Your task to perform on an android device: Do I have any events tomorrow? Image 0: 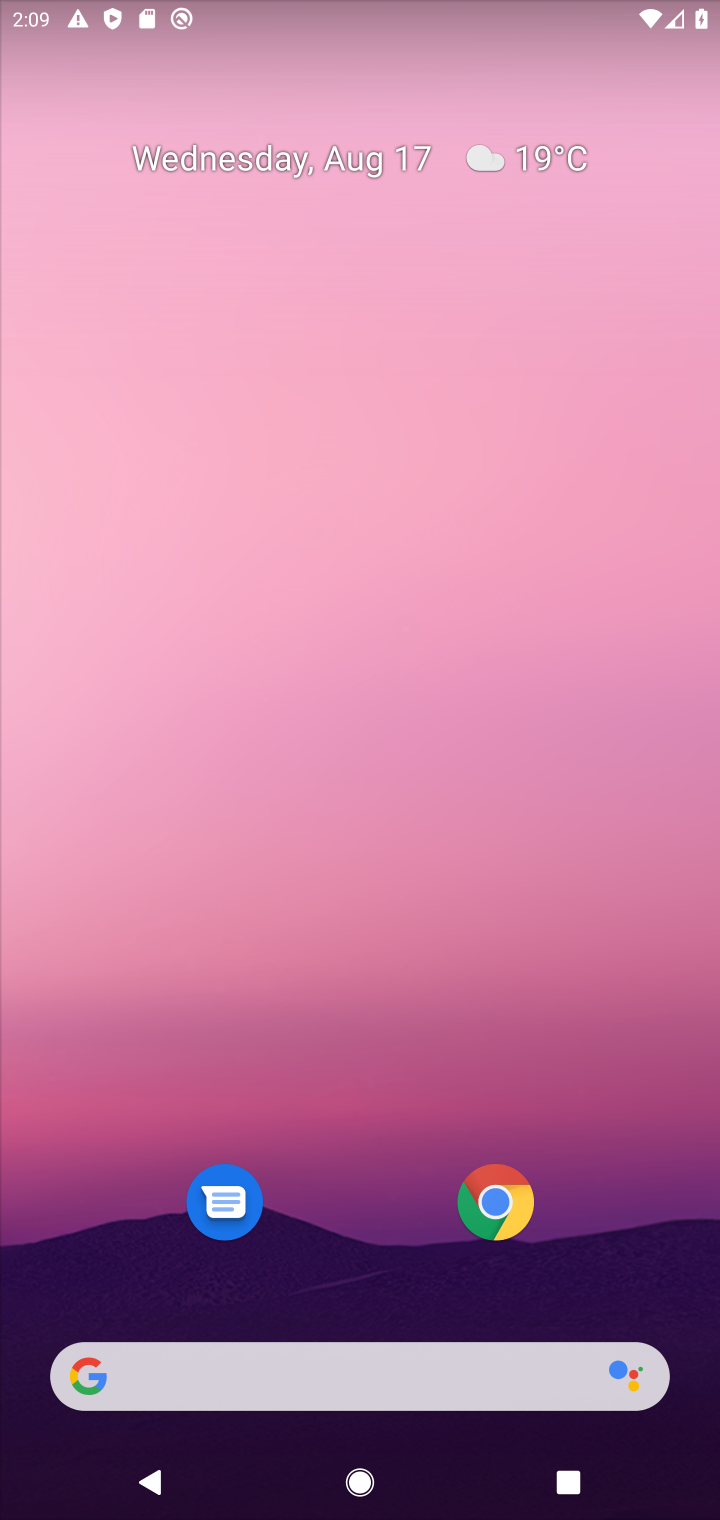
Step 0: click (423, 265)
Your task to perform on an android device: Do I have any events tomorrow? Image 1: 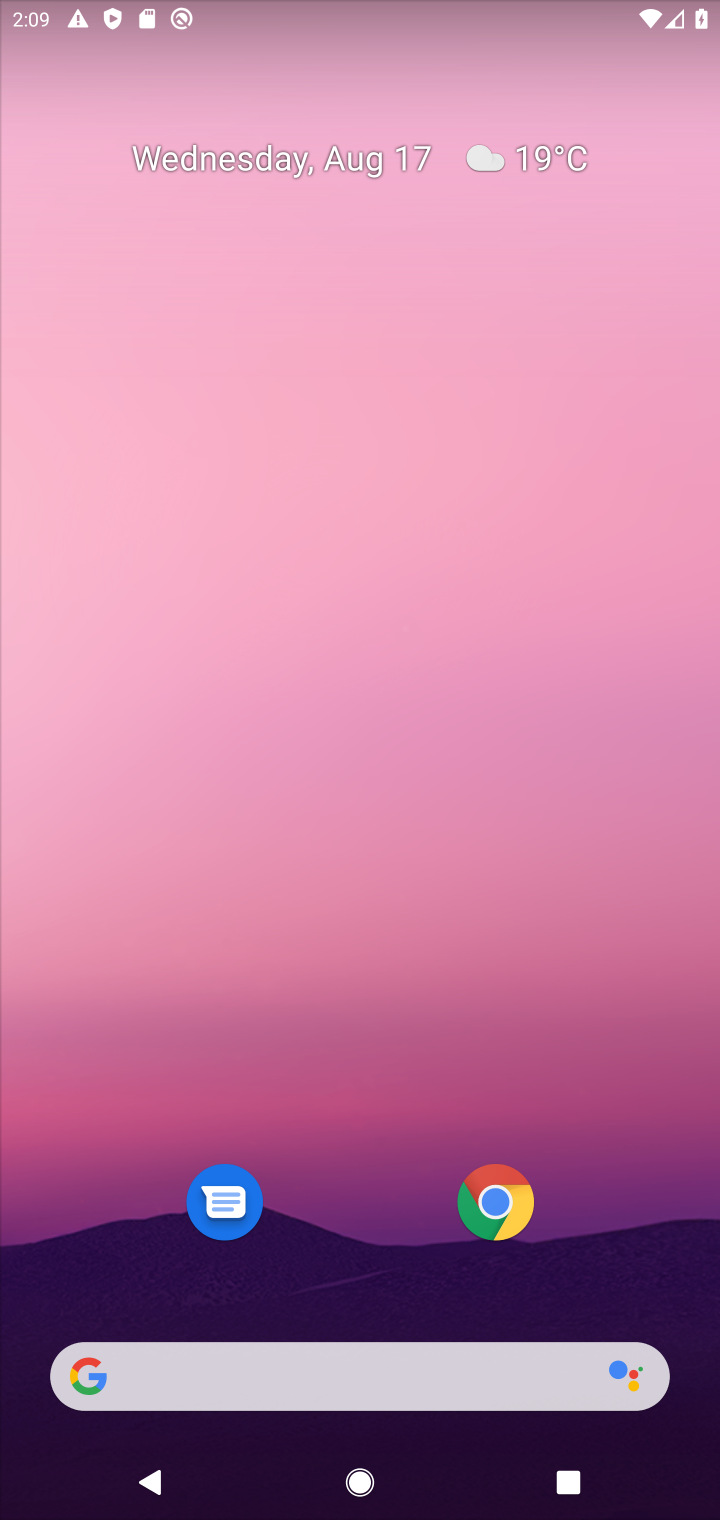
Step 1: drag from (409, 1275) to (414, 715)
Your task to perform on an android device: Do I have any events tomorrow? Image 2: 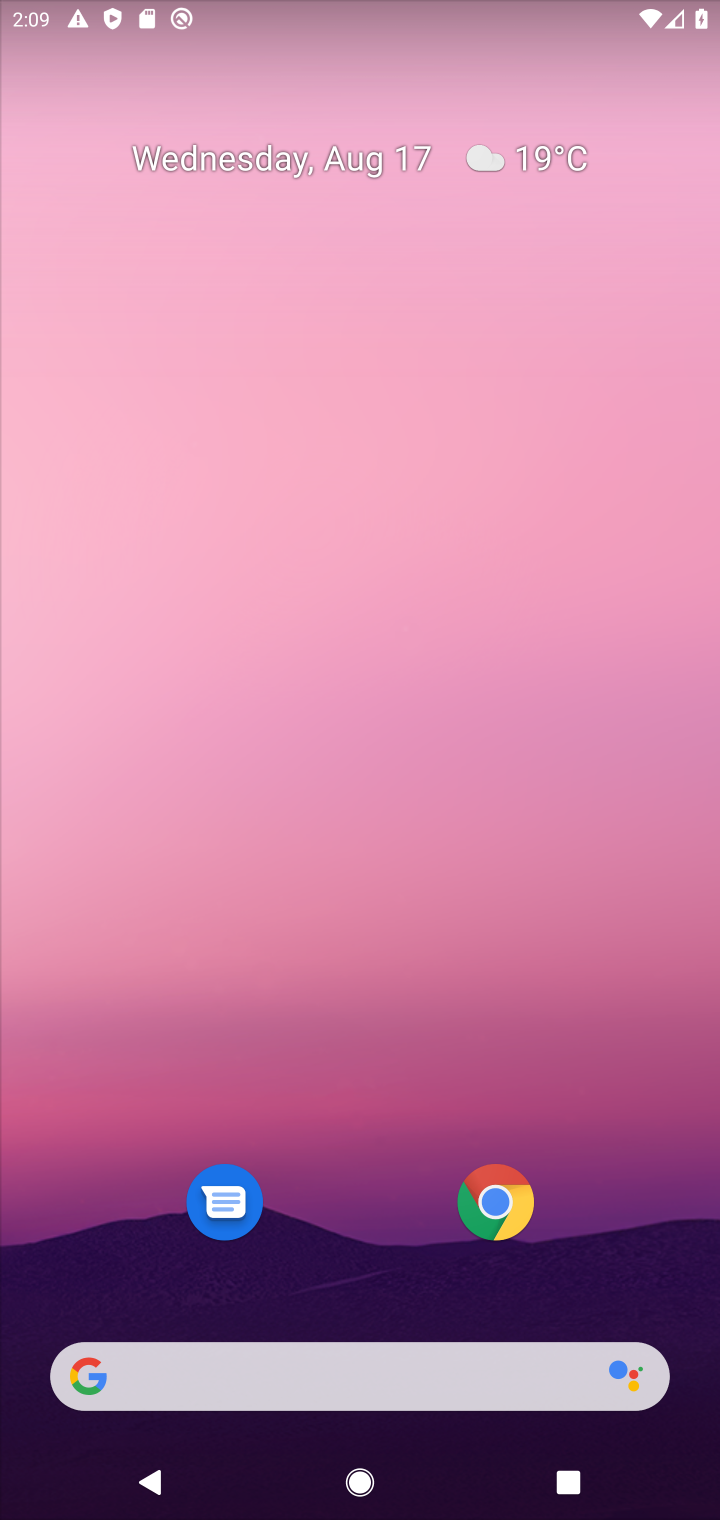
Step 2: drag from (334, 1313) to (589, 18)
Your task to perform on an android device: Do I have any events tomorrow? Image 3: 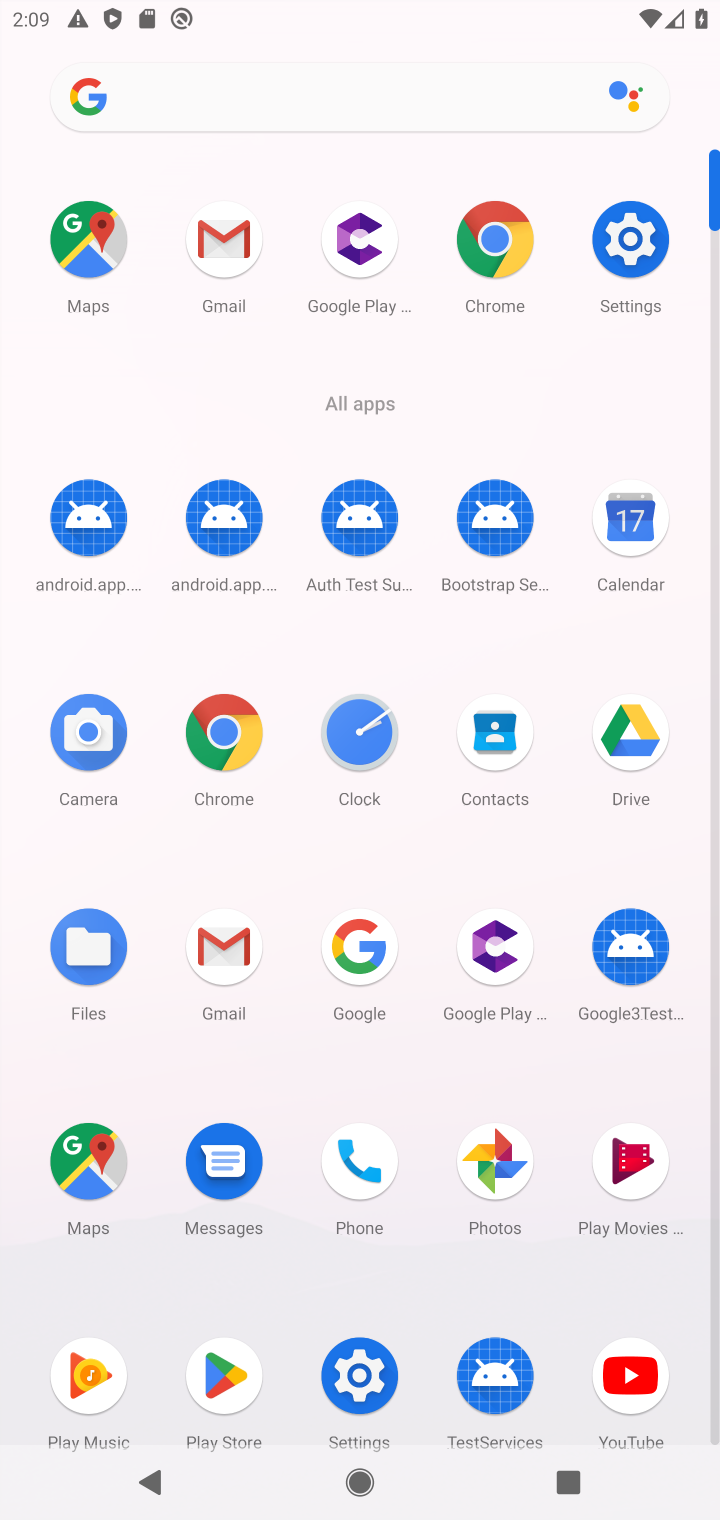
Step 3: click (637, 526)
Your task to perform on an android device: Do I have any events tomorrow? Image 4: 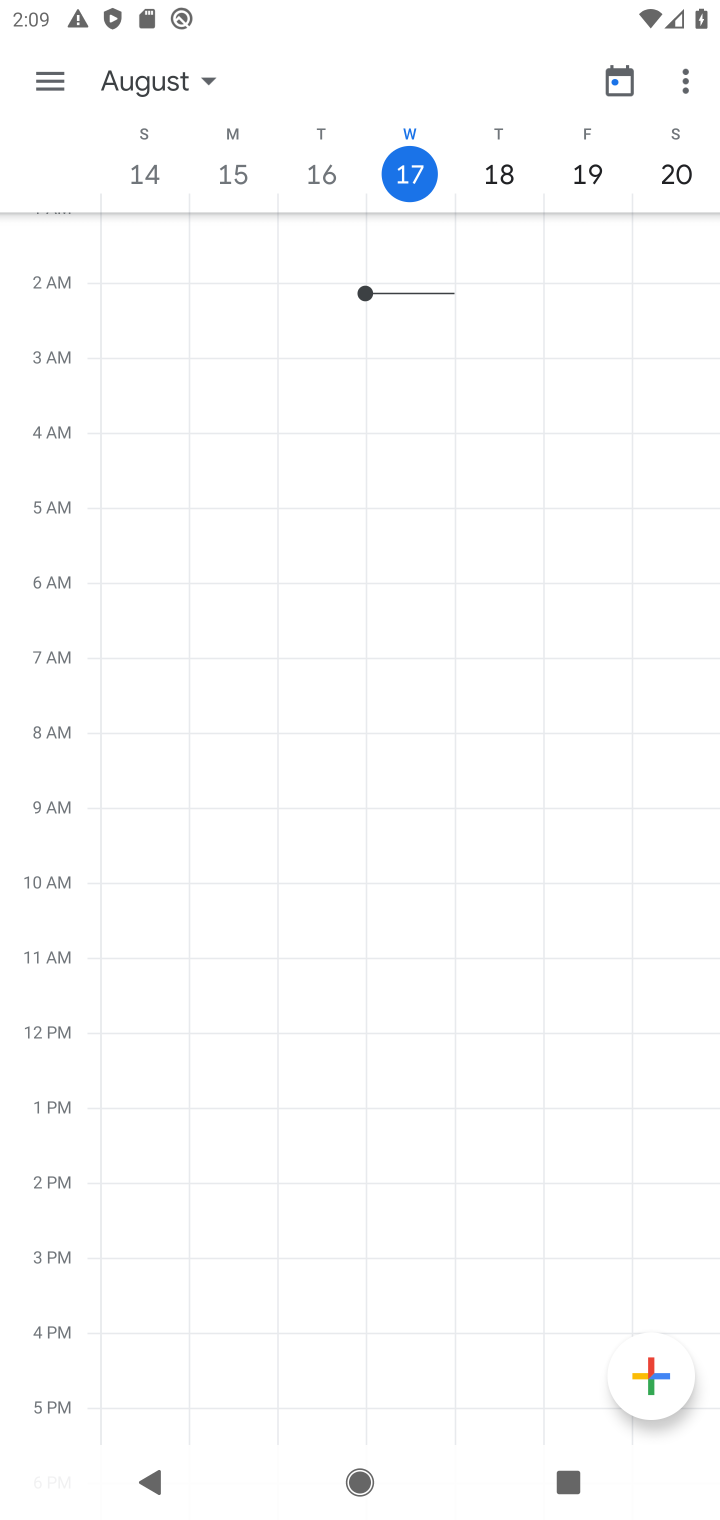
Step 4: click (97, 101)
Your task to perform on an android device: Do I have any events tomorrow? Image 5: 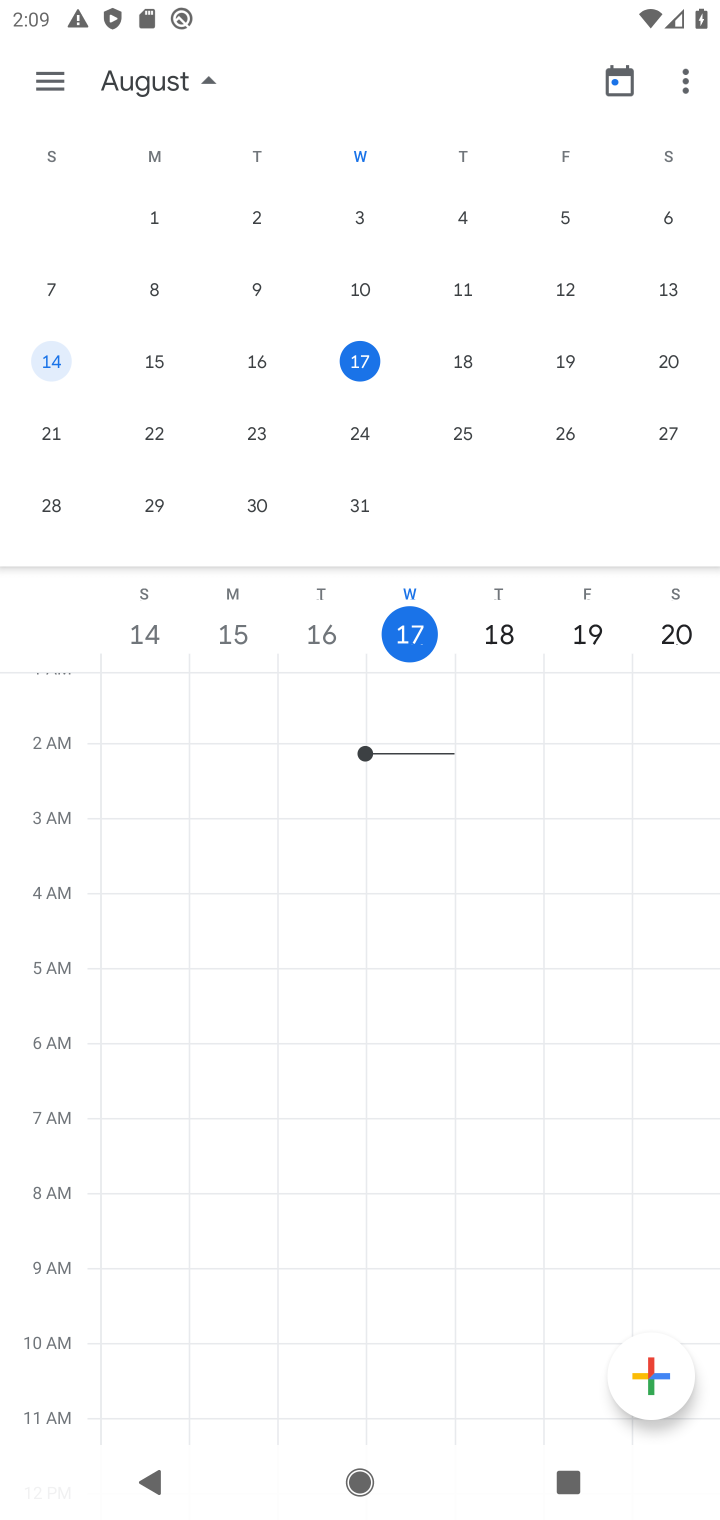
Step 5: click (30, 47)
Your task to perform on an android device: Do I have any events tomorrow? Image 6: 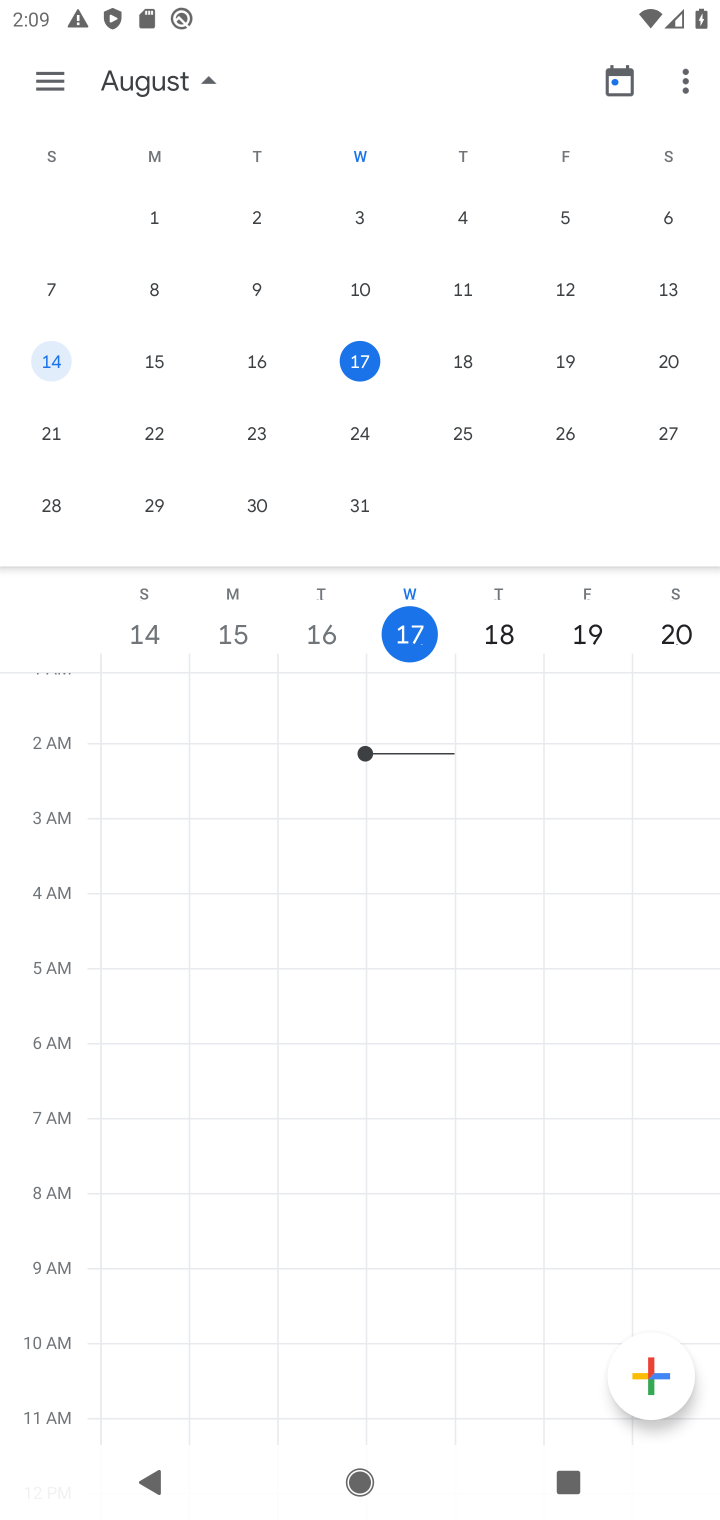
Step 6: click (50, 71)
Your task to perform on an android device: Do I have any events tomorrow? Image 7: 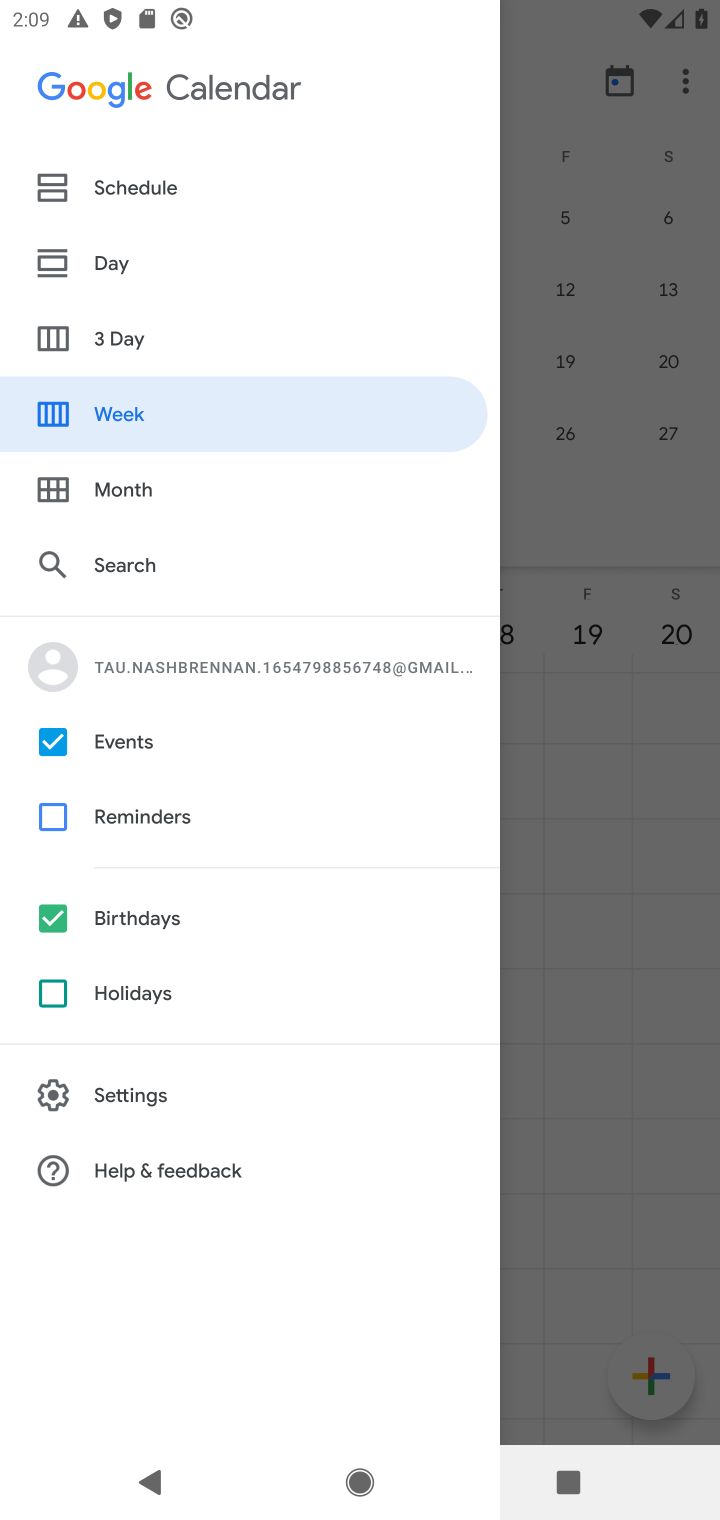
Step 7: click (151, 329)
Your task to perform on an android device: Do I have any events tomorrow? Image 8: 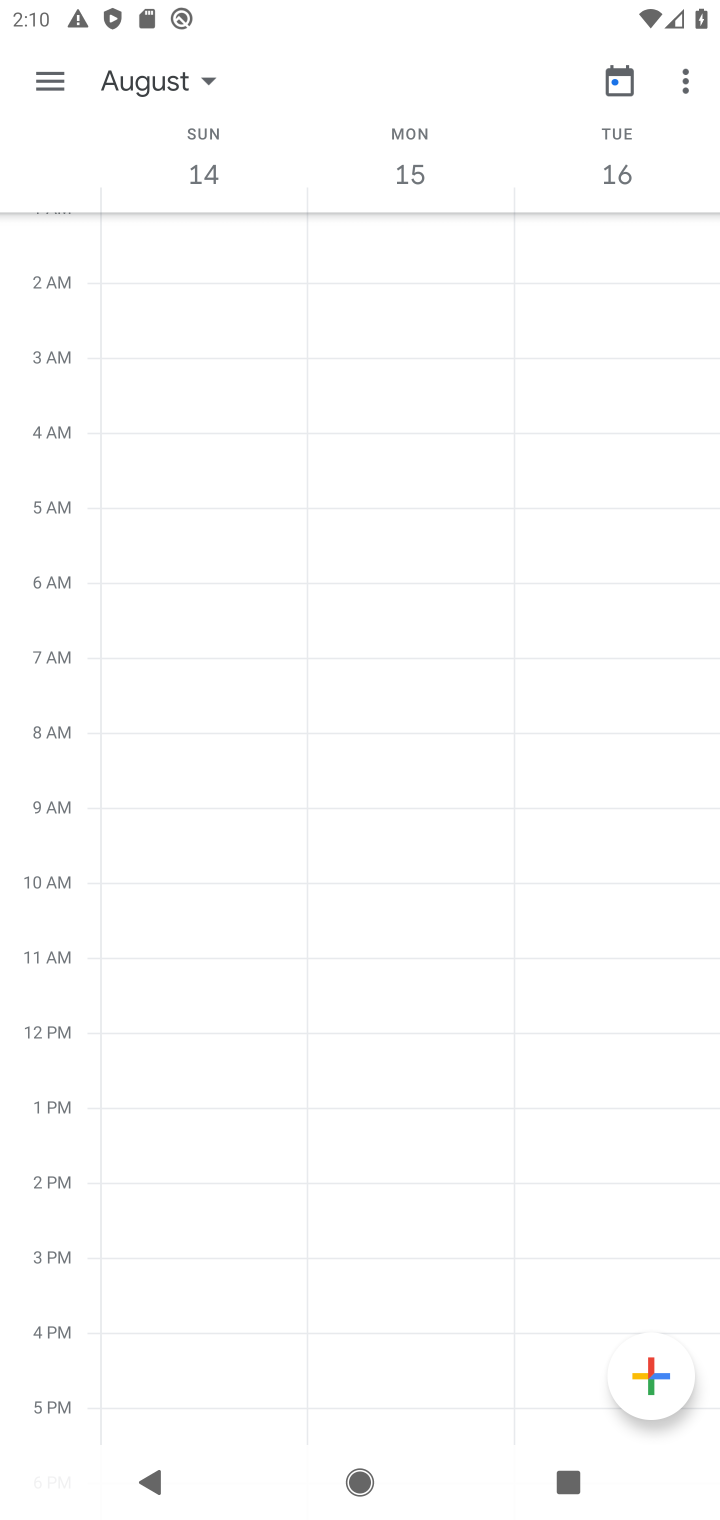
Step 8: task complete